Your task to perform on an android device: search for starred emails in the gmail app Image 0: 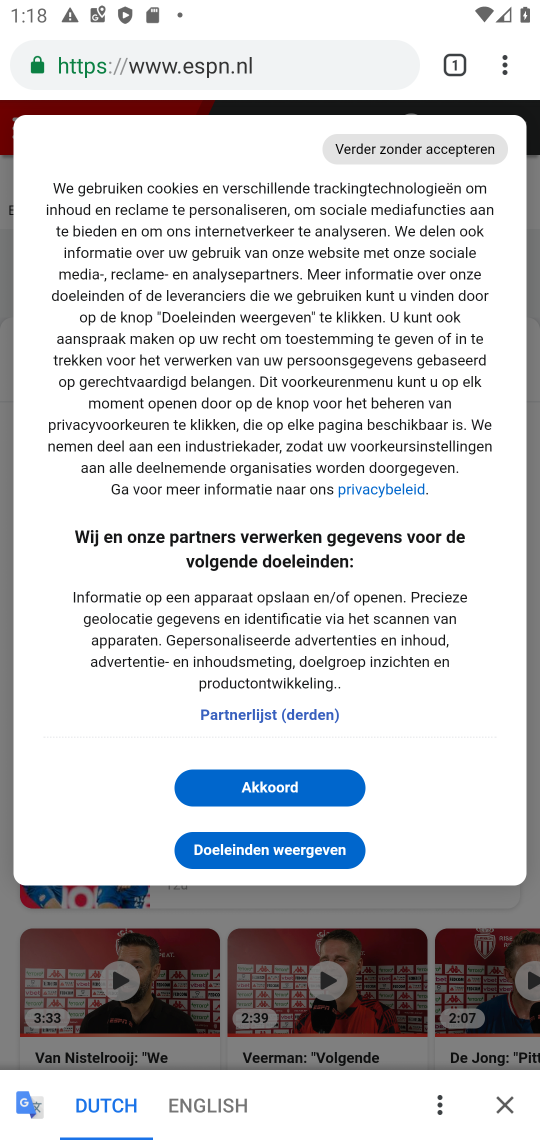
Step 0: press home button
Your task to perform on an android device: search for starred emails in the gmail app Image 1: 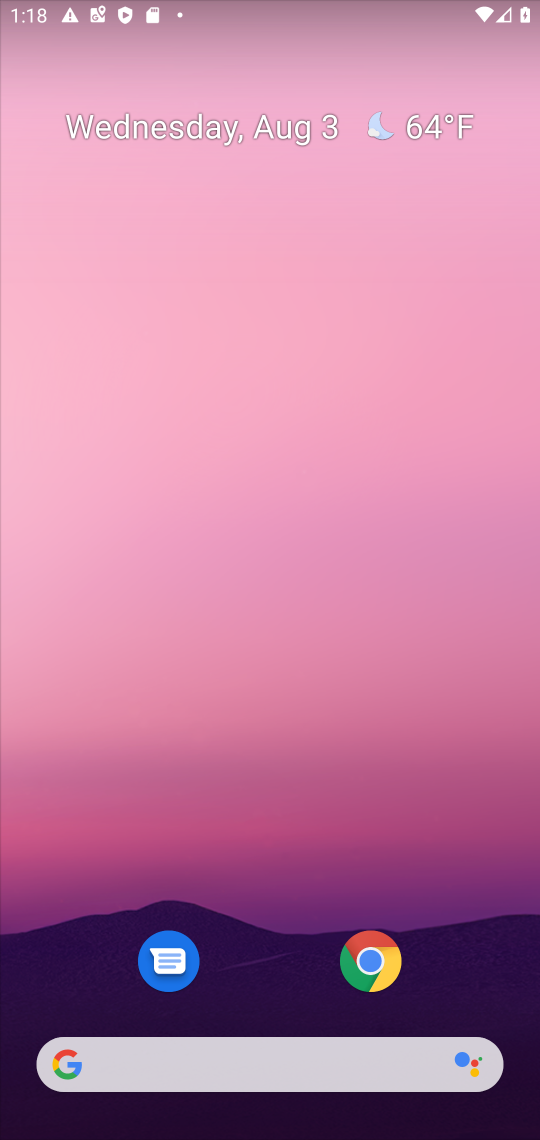
Step 1: drag from (268, 989) to (286, 4)
Your task to perform on an android device: search for starred emails in the gmail app Image 2: 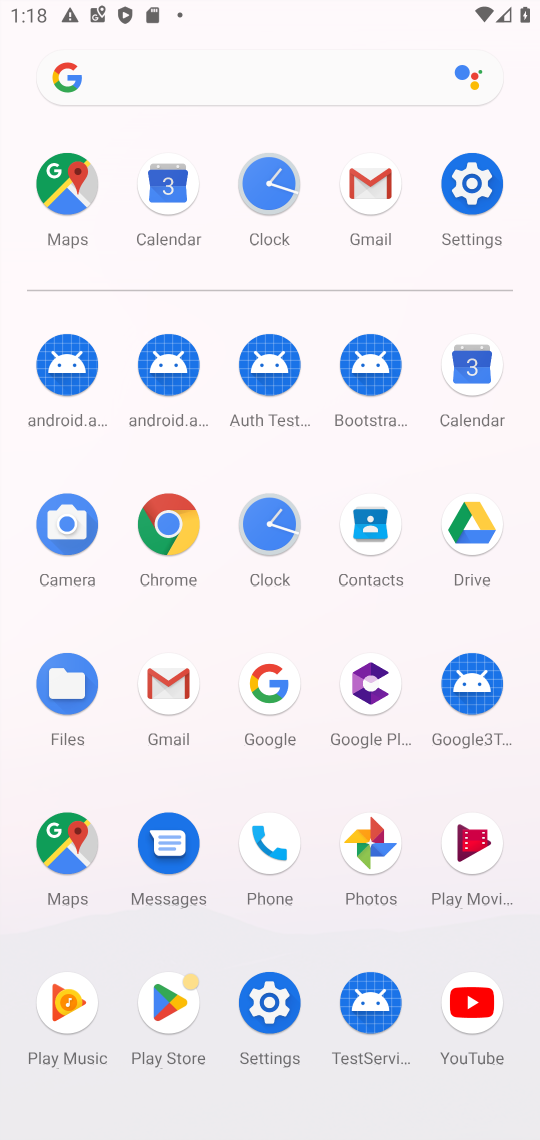
Step 2: click (371, 194)
Your task to perform on an android device: search for starred emails in the gmail app Image 3: 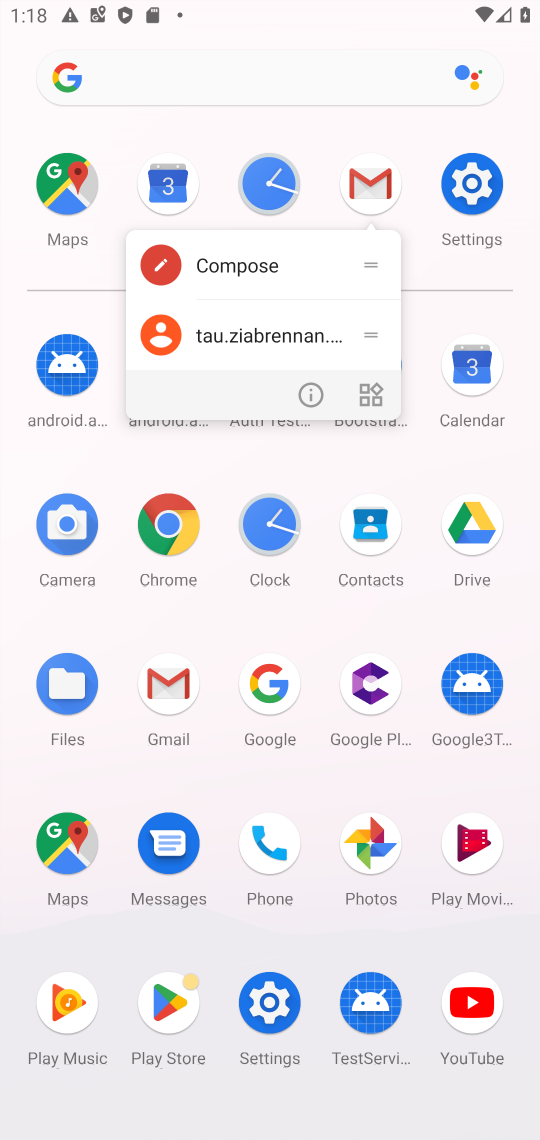
Step 3: click (369, 186)
Your task to perform on an android device: search for starred emails in the gmail app Image 4: 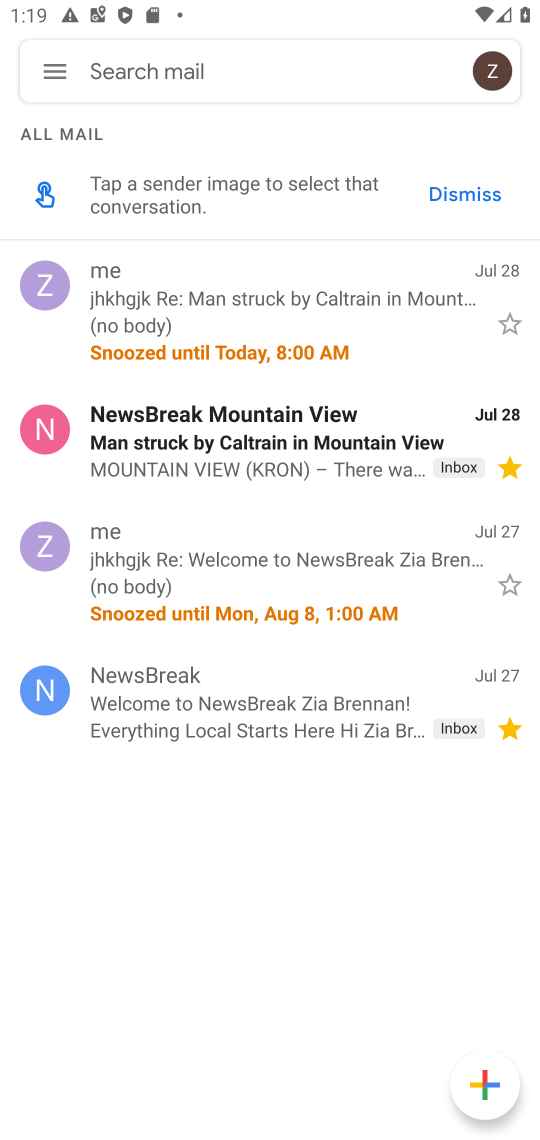
Step 4: click (61, 79)
Your task to perform on an android device: search for starred emails in the gmail app Image 5: 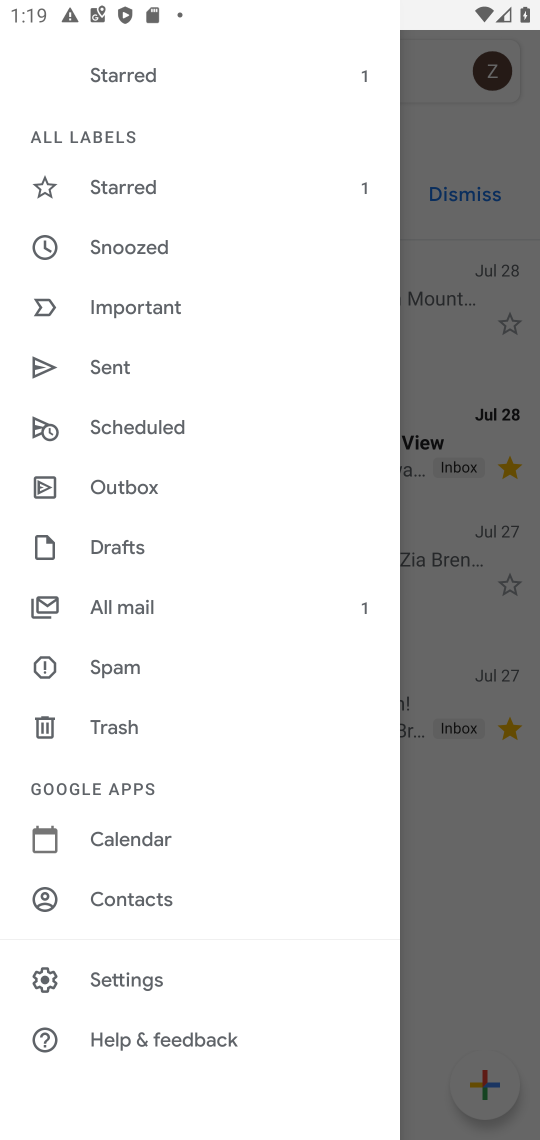
Step 5: click (101, 196)
Your task to perform on an android device: search for starred emails in the gmail app Image 6: 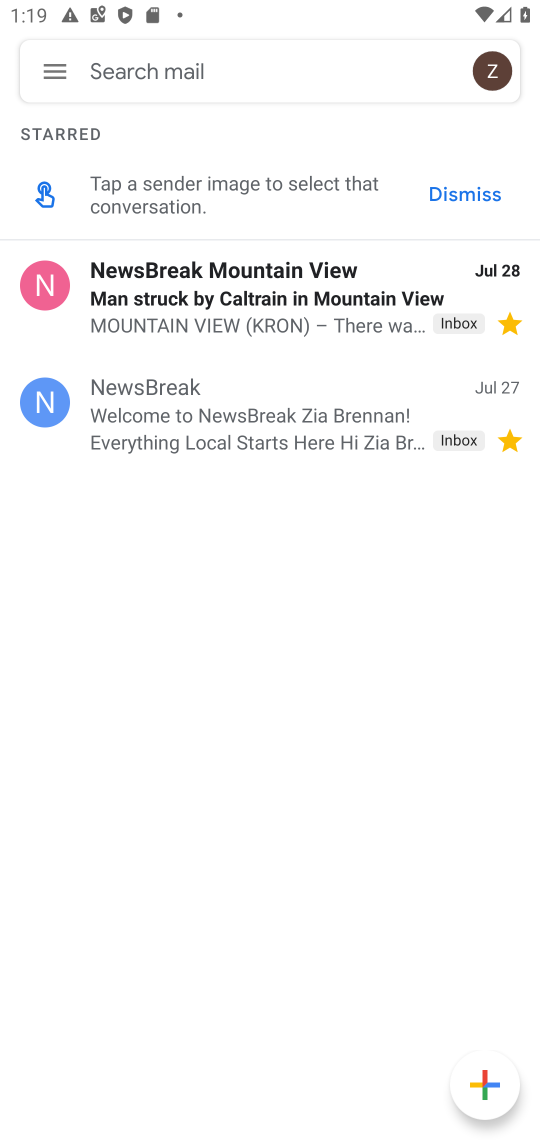
Step 6: task complete